Your task to perform on an android device: set default search engine in the chrome app Image 0: 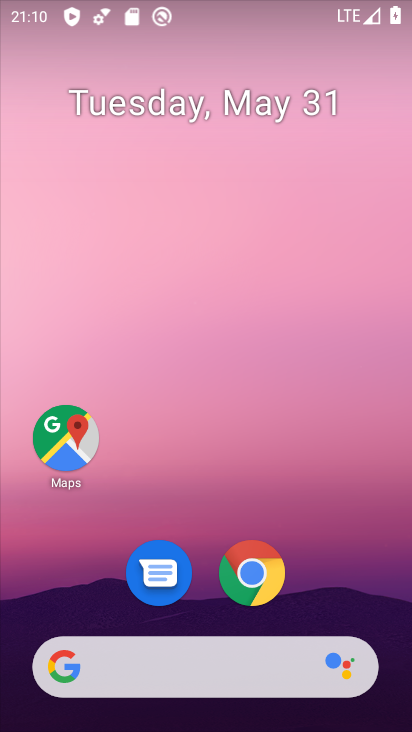
Step 0: click (256, 568)
Your task to perform on an android device: set default search engine in the chrome app Image 1: 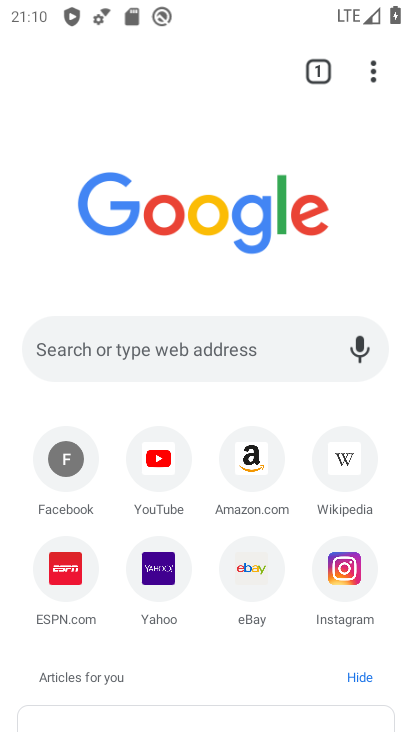
Step 1: click (366, 74)
Your task to perform on an android device: set default search engine in the chrome app Image 2: 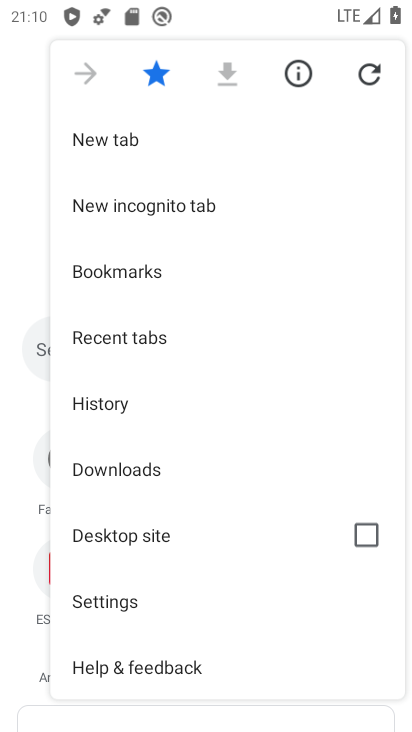
Step 2: drag from (183, 530) to (236, 179)
Your task to perform on an android device: set default search engine in the chrome app Image 3: 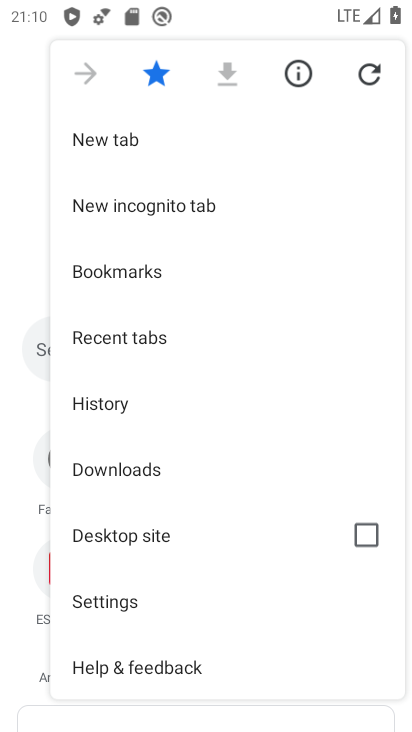
Step 3: click (130, 603)
Your task to perform on an android device: set default search engine in the chrome app Image 4: 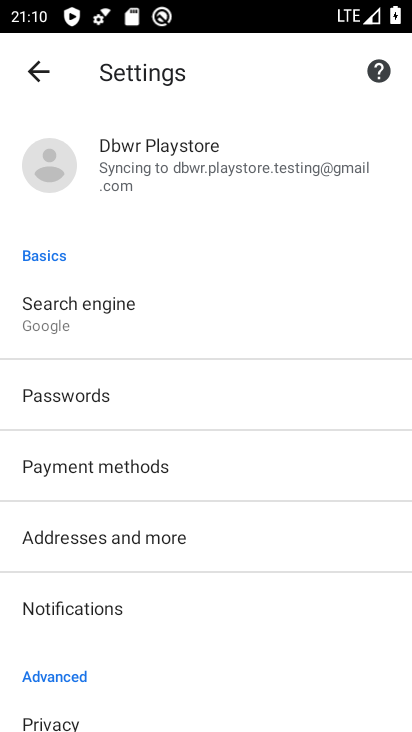
Step 4: click (119, 309)
Your task to perform on an android device: set default search engine in the chrome app Image 5: 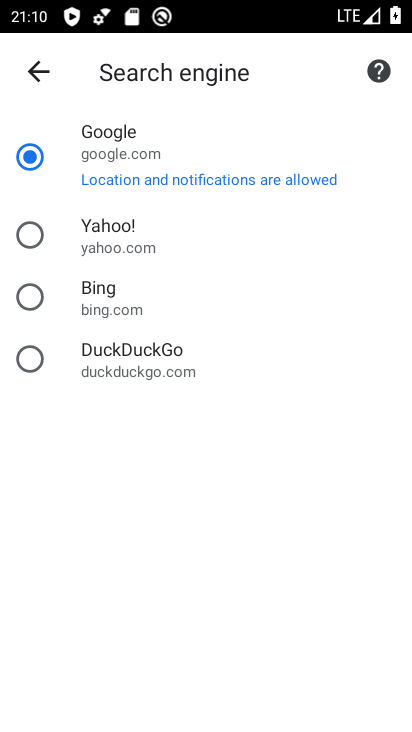
Step 5: task complete